Your task to perform on an android device: View the shopping cart on costco.com. Add usb-c to usb-b to the cart on costco.com, then select checkout. Image 0: 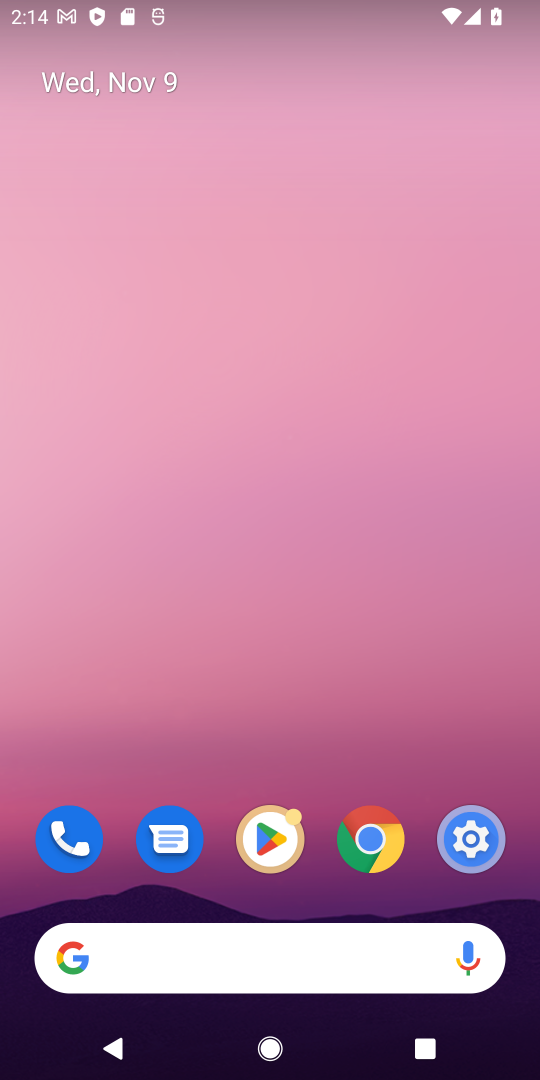
Step 0: click (318, 965)
Your task to perform on an android device: View the shopping cart on costco.com. Add usb-c to usb-b to the cart on costco.com, then select checkout. Image 1: 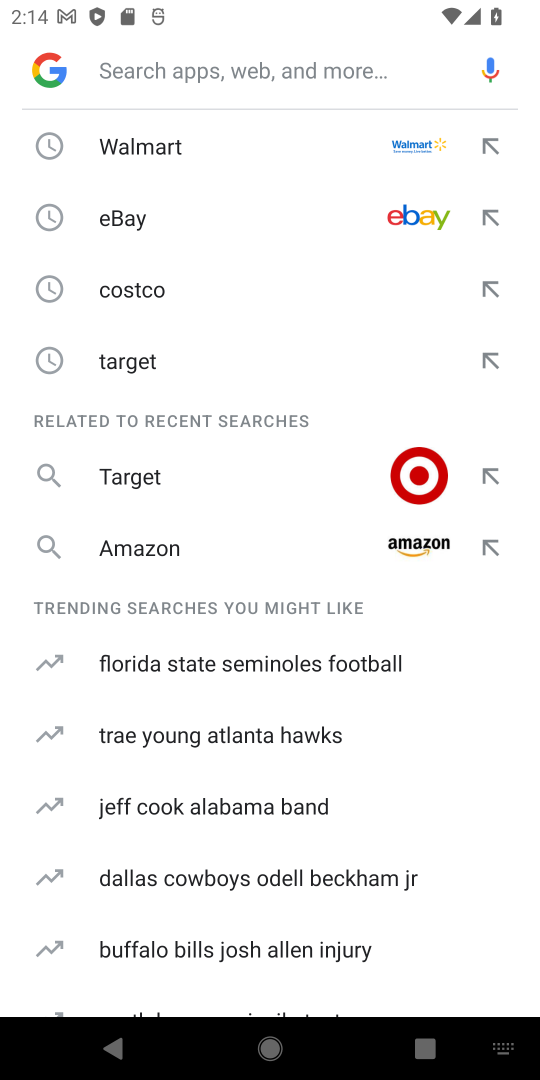
Step 1: click (134, 279)
Your task to perform on an android device: View the shopping cart on costco.com. Add usb-c to usb-b to the cart on costco.com, then select checkout. Image 2: 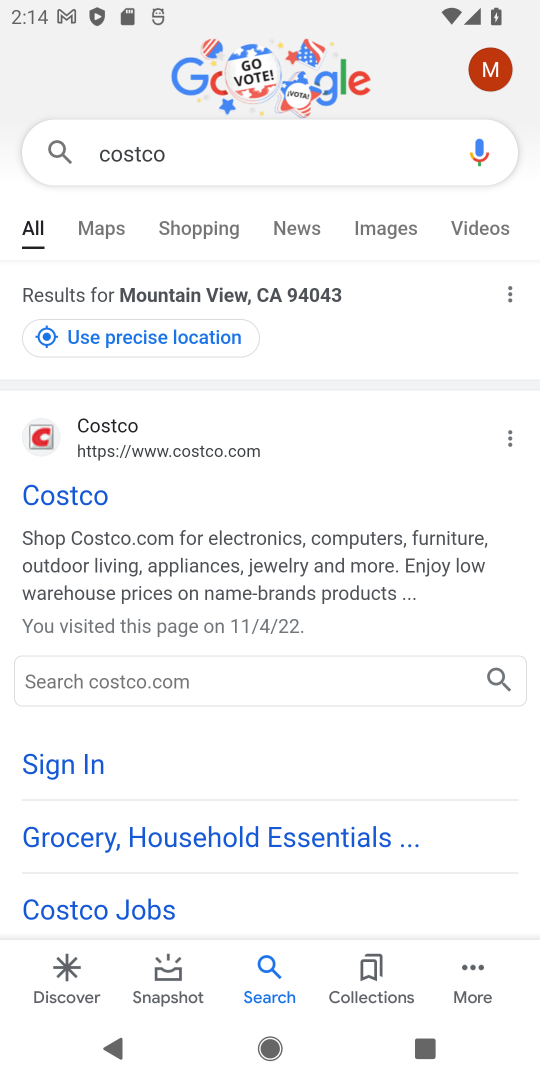
Step 2: click (57, 494)
Your task to perform on an android device: View the shopping cart on costco.com. Add usb-c to usb-b to the cart on costco.com, then select checkout. Image 3: 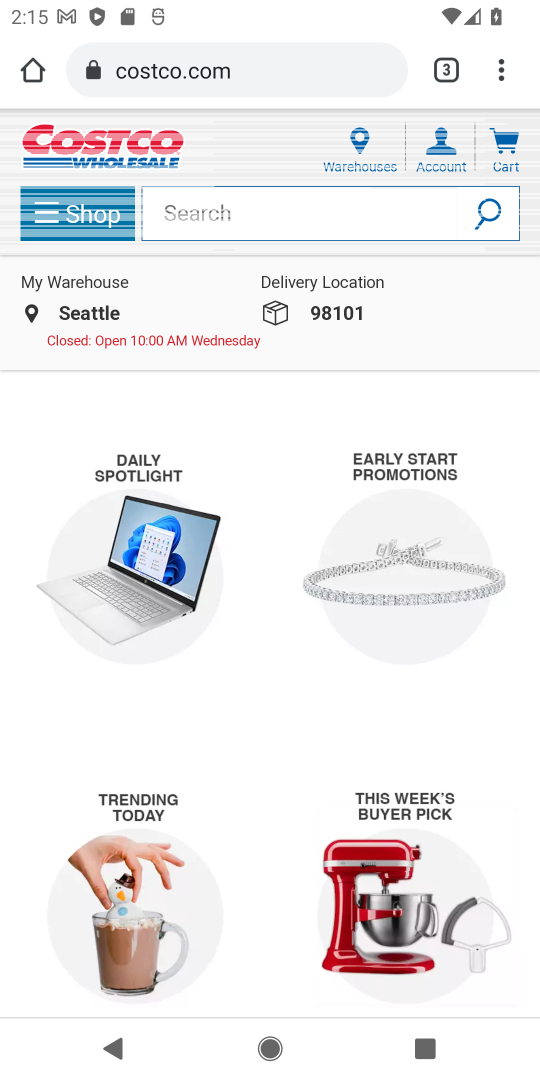
Step 3: click (274, 224)
Your task to perform on an android device: View the shopping cart on costco.com. Add usb-c to usb-b to the cart on costco.com, then select checkout. Image 4: 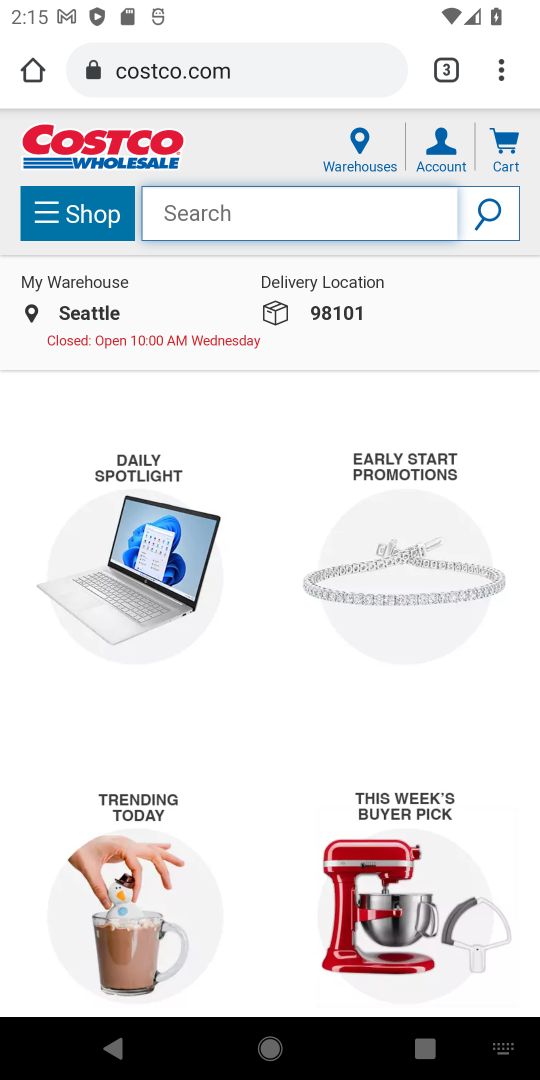
Step 4: type "usb-c to usb- b"
Your task to perform on an android device: View the shopping cart on costco.com. Add usb-c to usb-b to the cart on costco.com, then select checkout. Image 5: 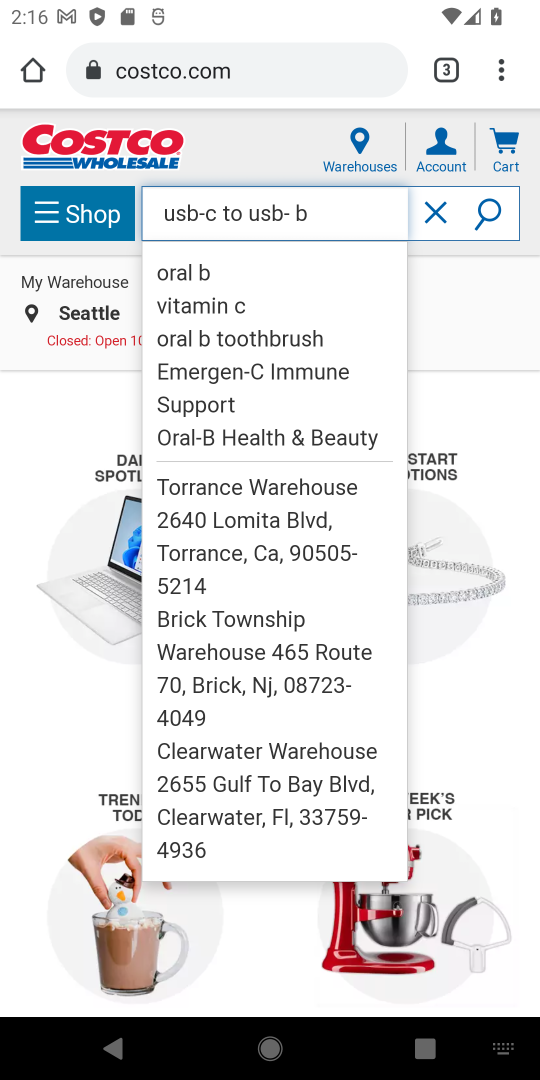
Step 5: click (498, 227)
Your task to perform on an android device: View the shopping cart on costco.com. Add usb-c to usb-b to the cart on costco.com, then select checkout. Image 6: 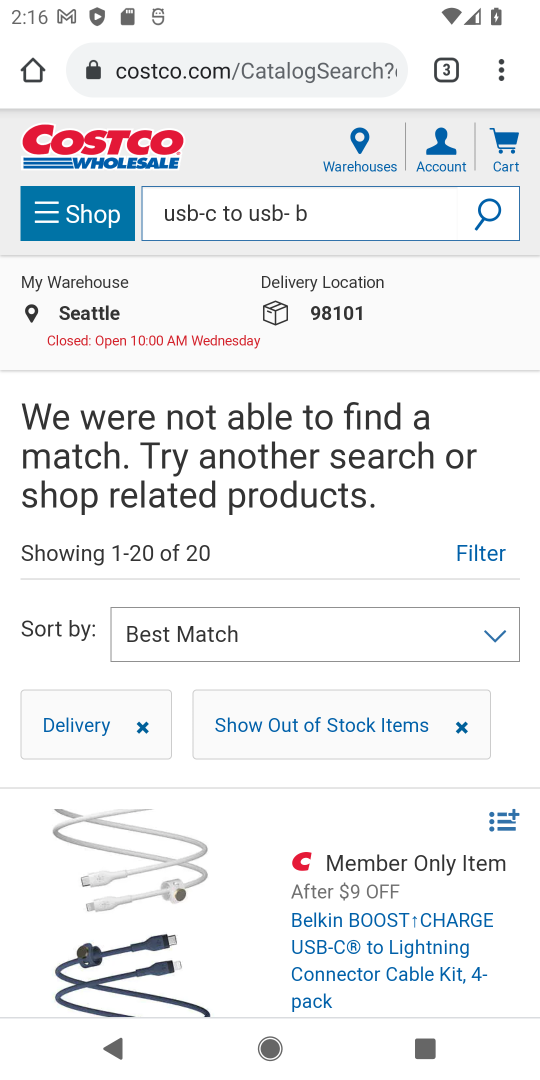
Step 6: drag from (273, 953) to (344, 381)
Your task to perform on an android device: View the shopping cart on costco.com. Add usb-c to usb-b to the cart on costco.com, then select checkout. Image 7: 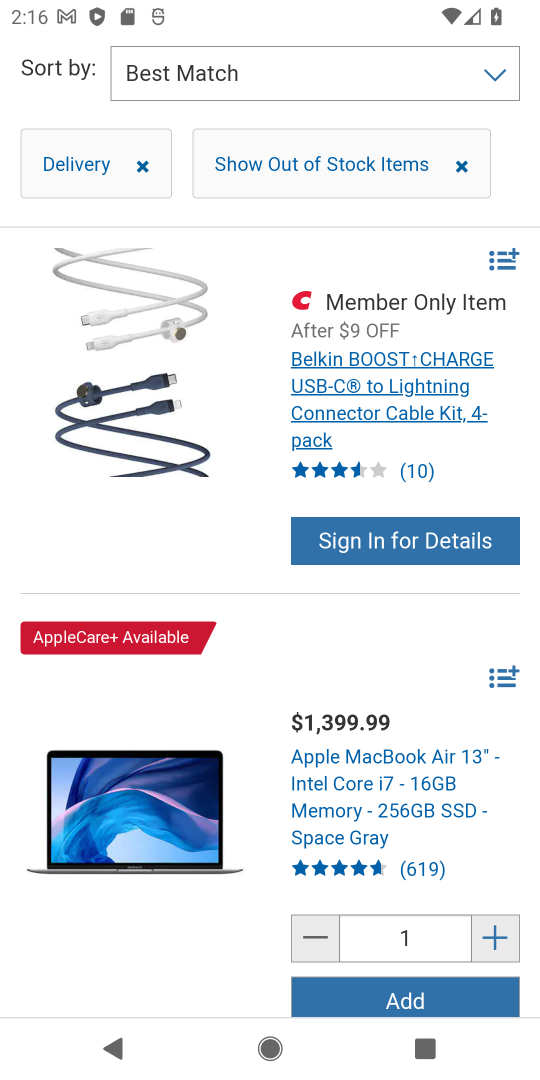
Step 7: click (384, 1015)
Your task to perform on an android device: View the shopping cart on costco.com. Add usb-c to usb-b to the cart on costco.com, then select checkout. Image 8: 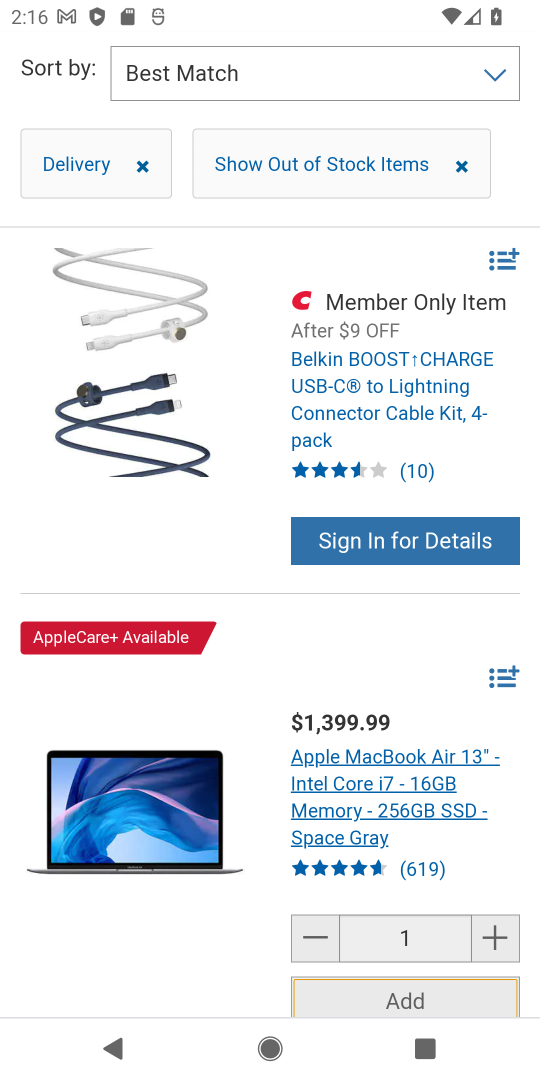
Step 8: task complete